Your task to perform on an android device: Is it going to rain today? Image 0: 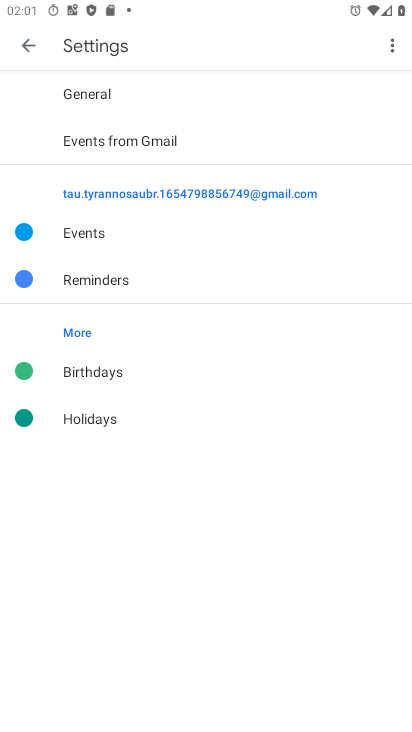
Step 0: press home button
Your task to perform on an android device: Is it going to rain today? Image 1: 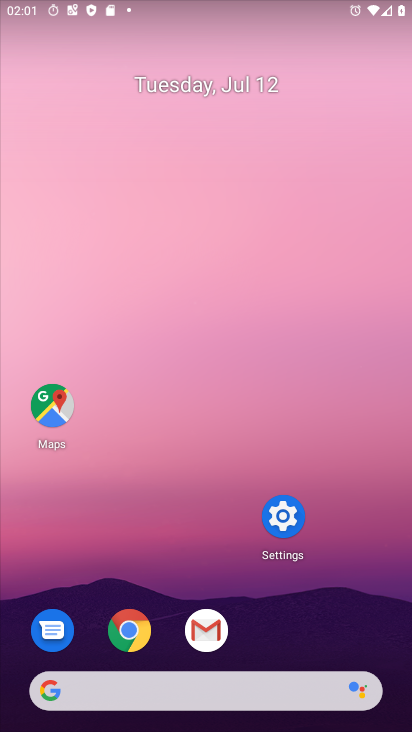
Step 1: drag from (245, 710) to (188, 197)
Your task to perform on an android device: Is it going to rain today? Image 2: 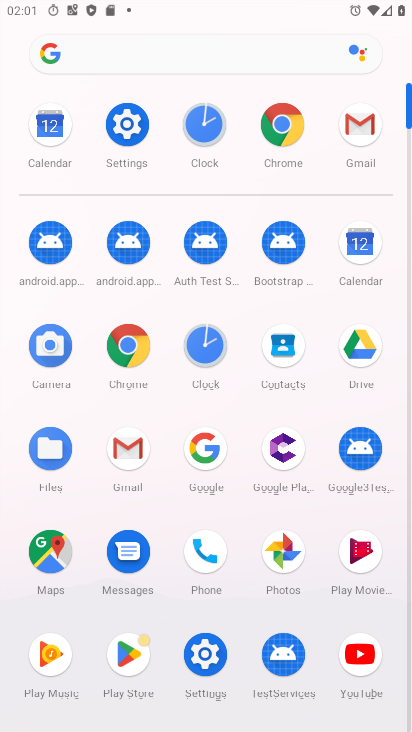
Step 2: click (80, 55)
Your task to perform on an android device: Is it going to rain today? Image 3: 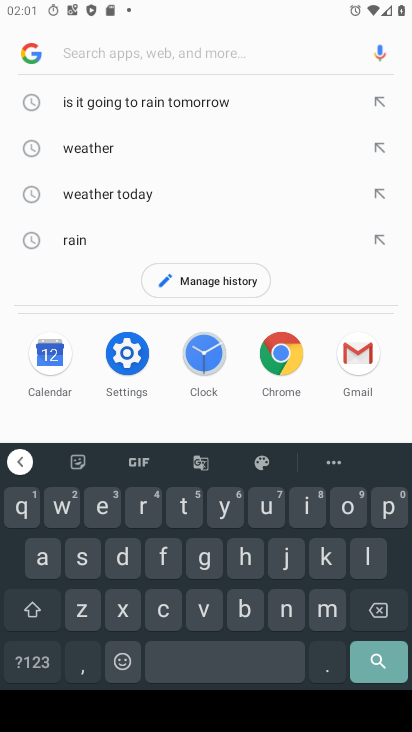
Step 3: click (81, 235)
Your task to perform on an android device: Is it going to rain today? Image 4: 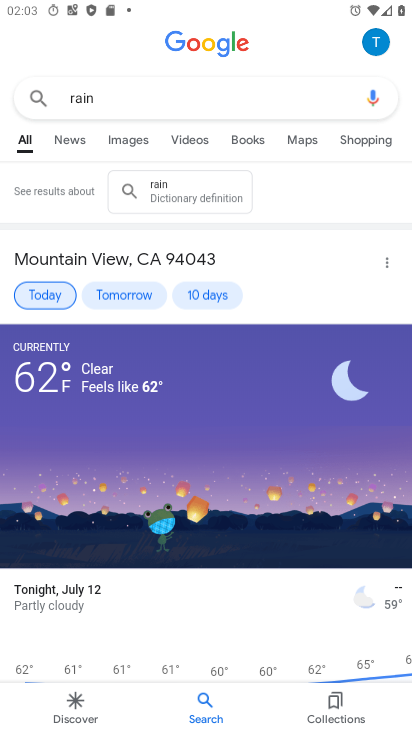
Step 4: task complete